Your task to perform on an android device: show emergency info Image 0: 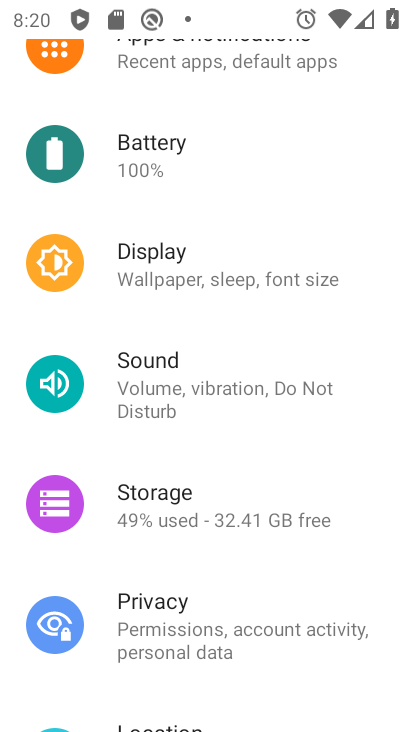
Step 0: press home button
Your task to perform on an android device: show emergency info Image 1: 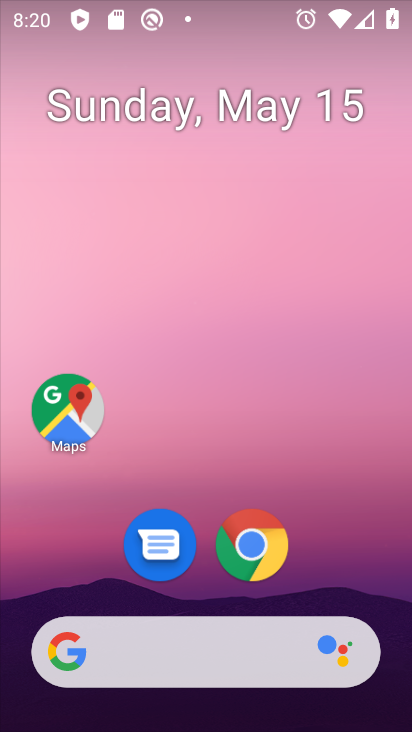
Step 1: drag from (374, 571) to (378, 83)
Your task to perform on an android device: show emergency info Image 2: 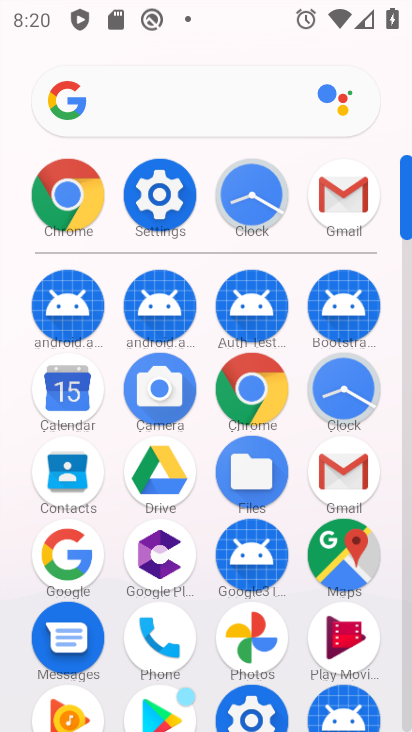
Step 2: click (155, 207)
Your task to perform on an android device: show emergency info Image 3: 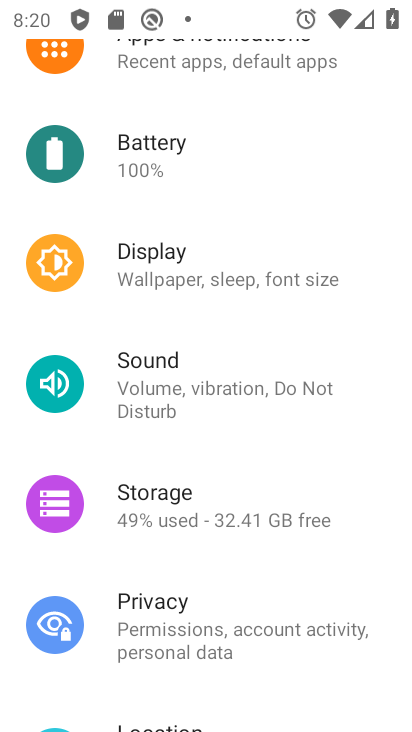
Step 3: drag from (375, 156) to (356, 427)
Your task to perform on an android device: show emergency info Image 4: 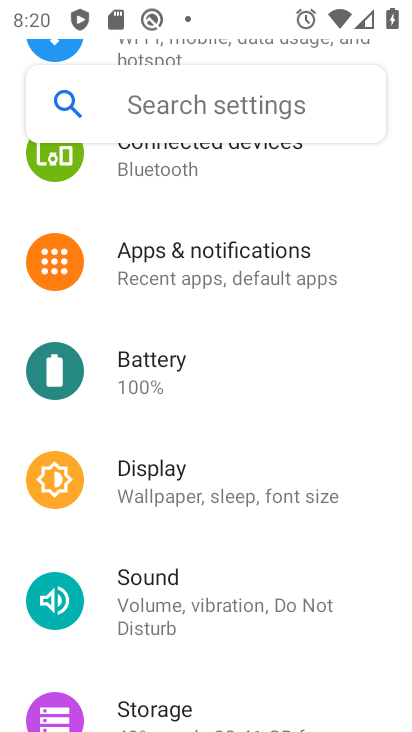
Step 4: drag from (370, 215) to (355, 481)
Your task to perform on an android device: show emergency info Image 5: 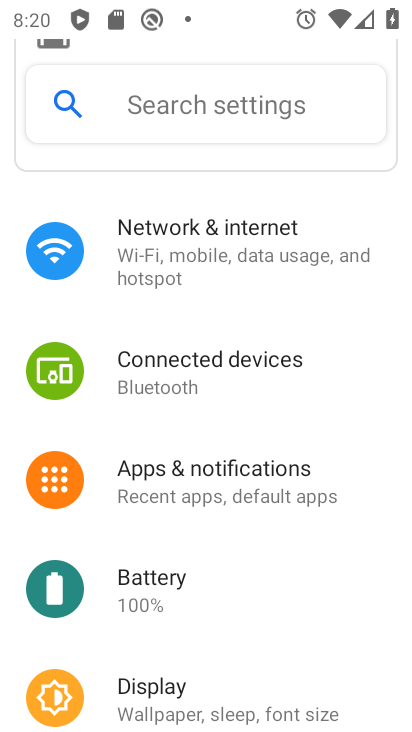
Step 5: drag from (386, 202) to (373, 509)
Your task to perform on an android device: show emergency info Image 6: 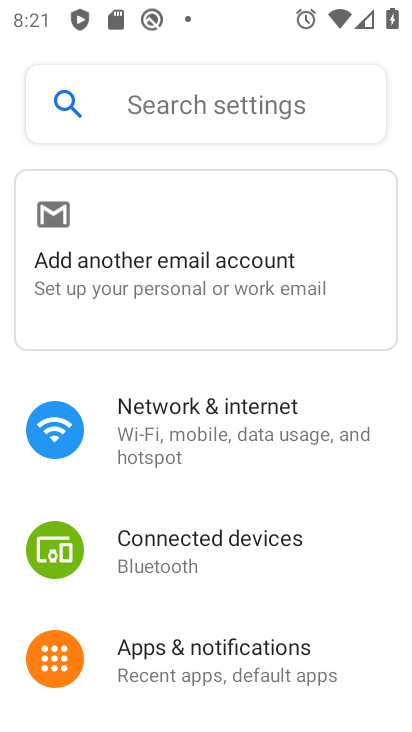
Step 6: drag from (365, 597) to (386, 323)
Your task to perform on an android device: show emergency info Image 7: 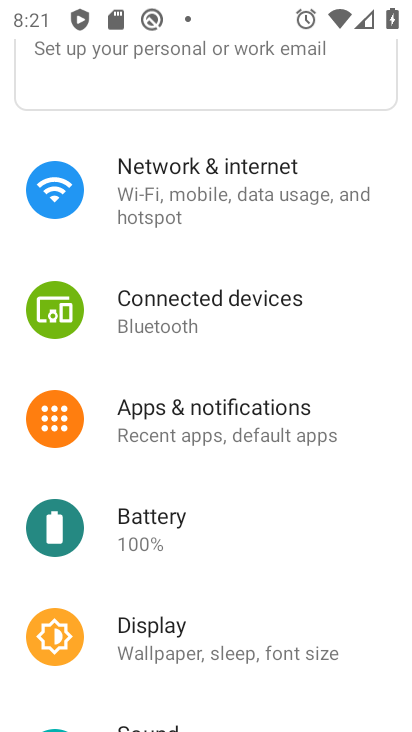
Step 7: drag from (370, 605) to (360, 323)
Your task to perform on an android device: show emergency info Image 8: 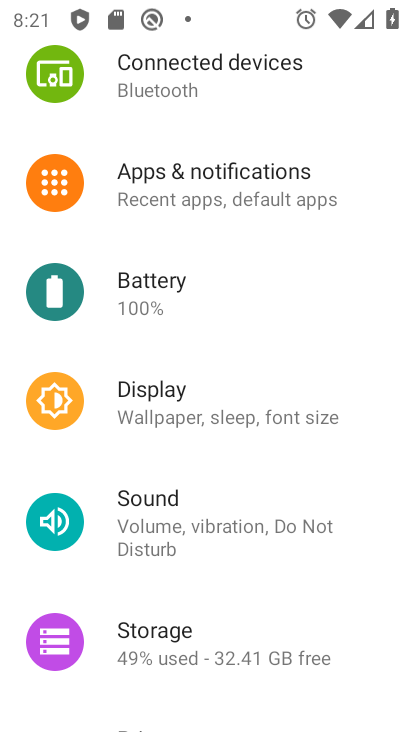
Step 8: drag from (358, 638) to (354, 343)
Your task to perform on an android device: show emergency info Image 9: 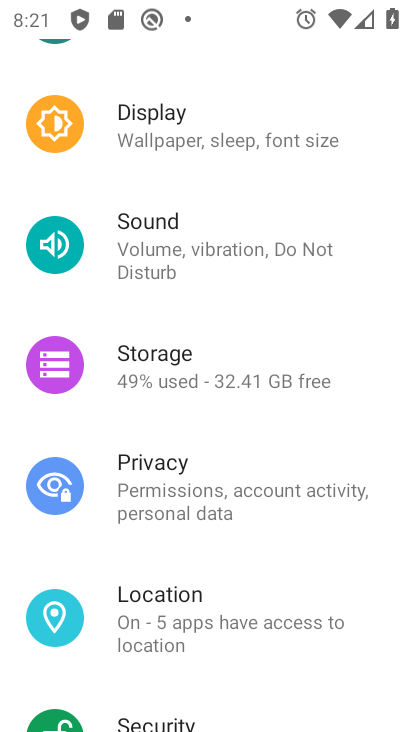
Step 9: drag from (357, 675) to (360, 414)
Your task to perform on an android device: show emergency info Image 10: 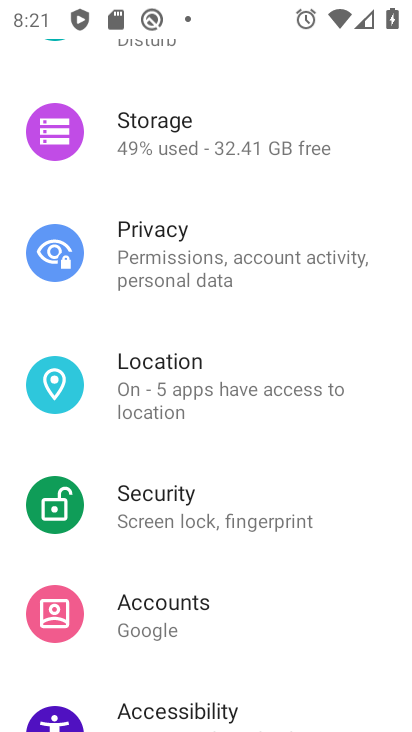
Step 10: drag from (352, 657) to (374, 435)
Your task to perform on an android device: show emergency info Image 11: 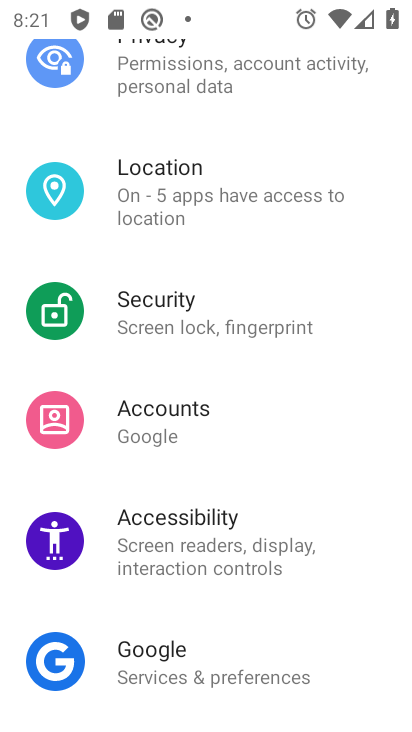
Step 11: drag from (369, 685) to (362, 443)
Your task to perform on an android device: show emergency info Image 12: 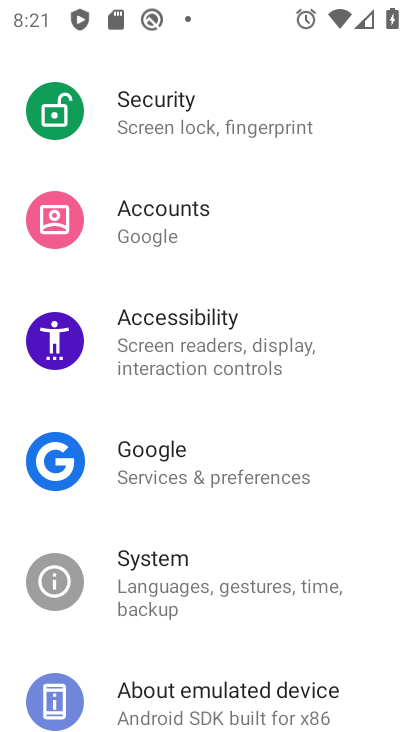
Step 12: drag from (366, 673) to (364, 433)
Your task to perform on an android device: show emergency info Image 13: 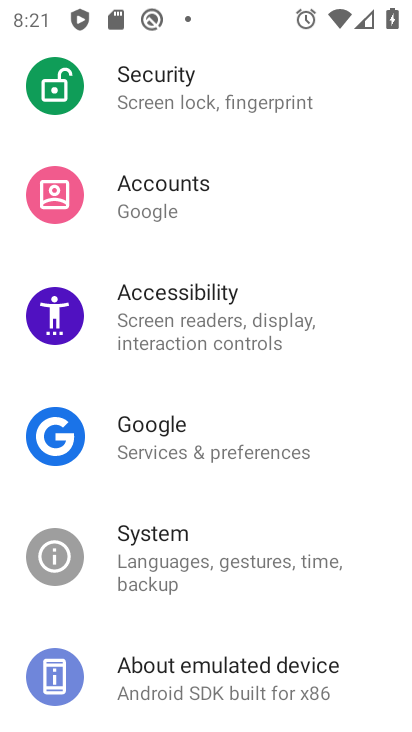
Step 13: click (296, 675)
Your task to perform on an android device: show emergency info Image 14: 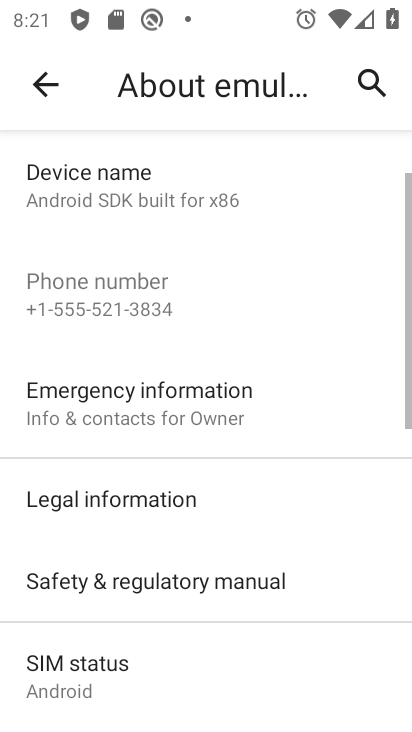
Step 14: click (226, 416)
Your task to perform on an android device: show emergency info Image 15: 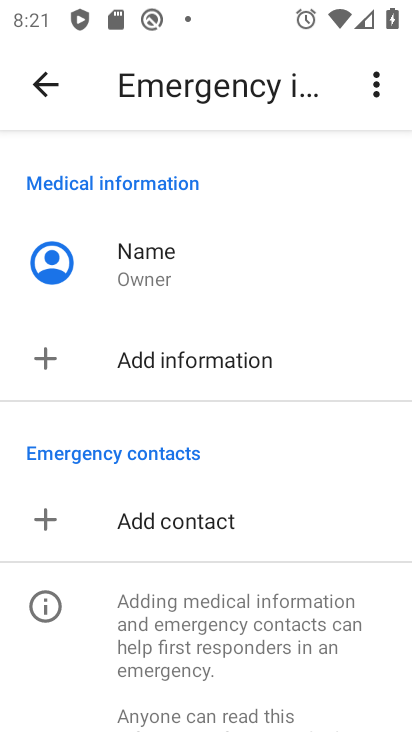
Step 15: task complete